Your task to perform on an android device: Go to notification settings Image 0: 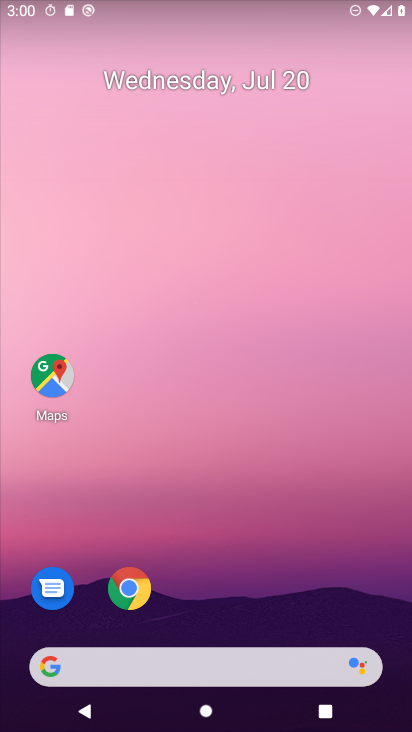
Step 0: drag from (210, 644) to (220, 0)
Your task to perform on an android device: Go to notification settings Image 1: 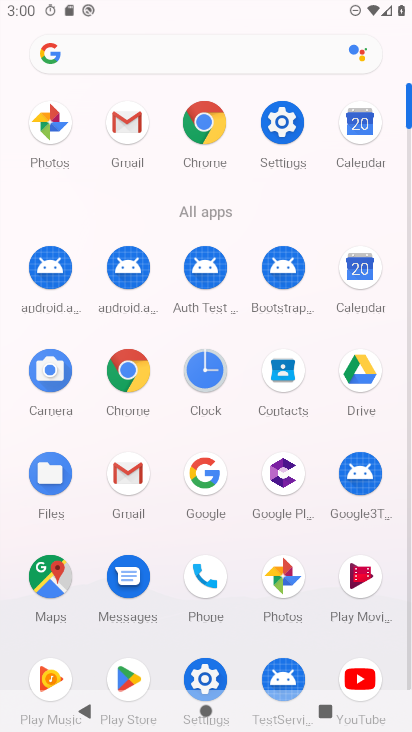
Step 1: click (286, 147)
Your task to perform on an android device: Go to notification settings Image 2: 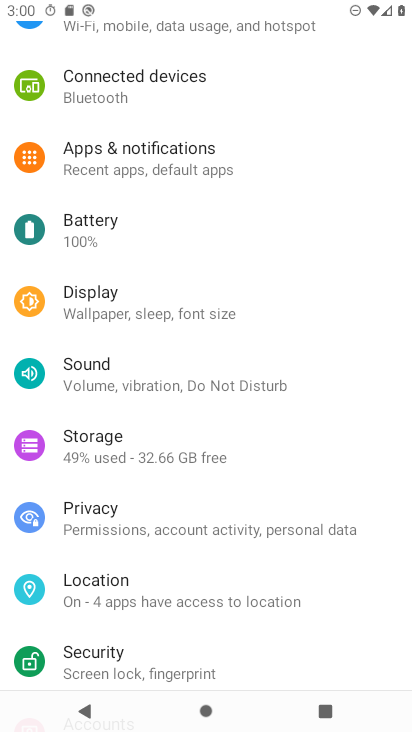
Step 2: click (159, 152)
Your task to perform on an android device: Go to notification settings Image 3: 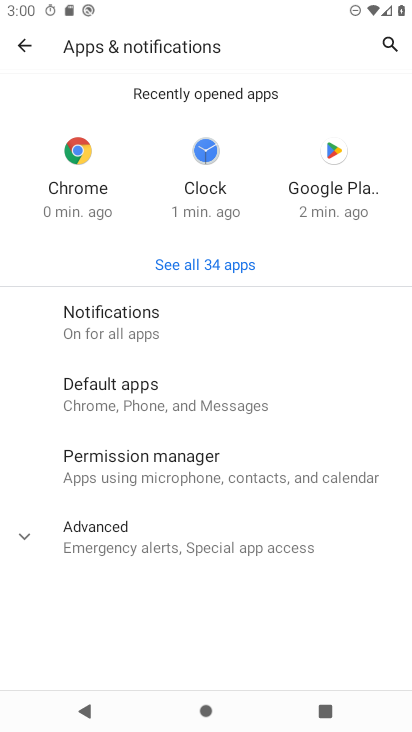
Step 3: click (84, 314)
Your task to perform on an android device: Go to notification settings Image 4: 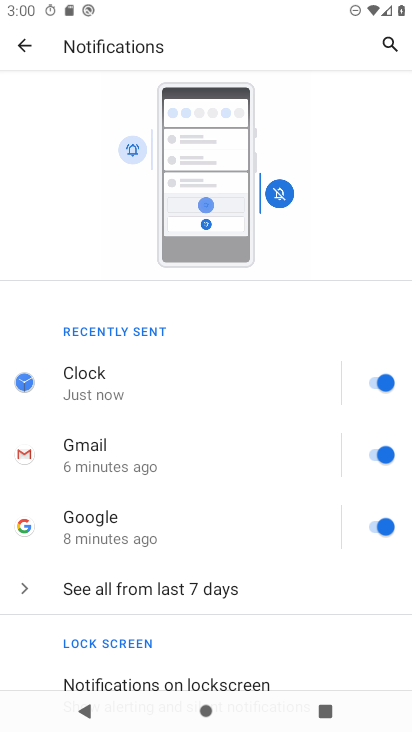
Step 4: task complete